Your task to perform on an android device: Search for pizza restaurants on Maps Image 0: 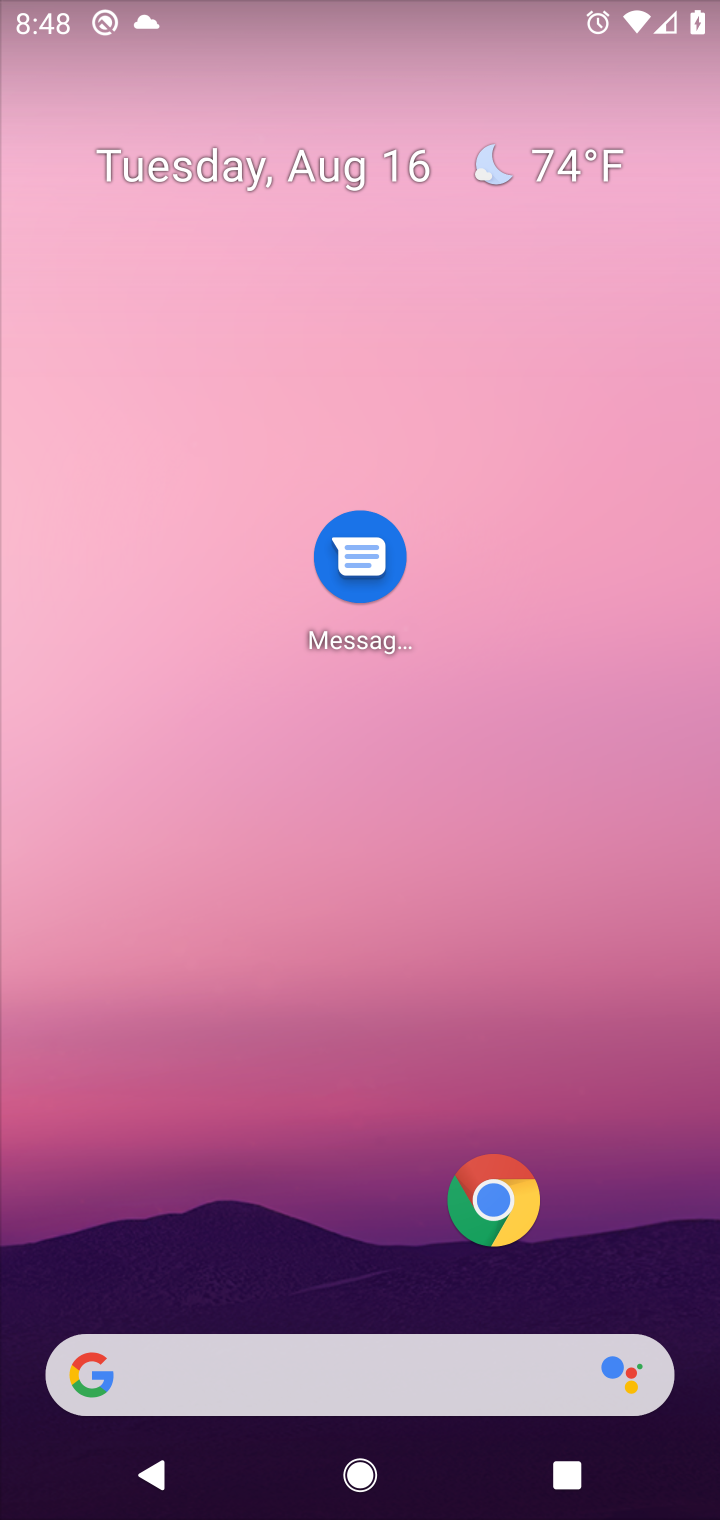
Step 0: drag from (212, 1146) to (510, 240)
Your task to perform on an android device: Search for pizza restaurants on Maps Image 1: 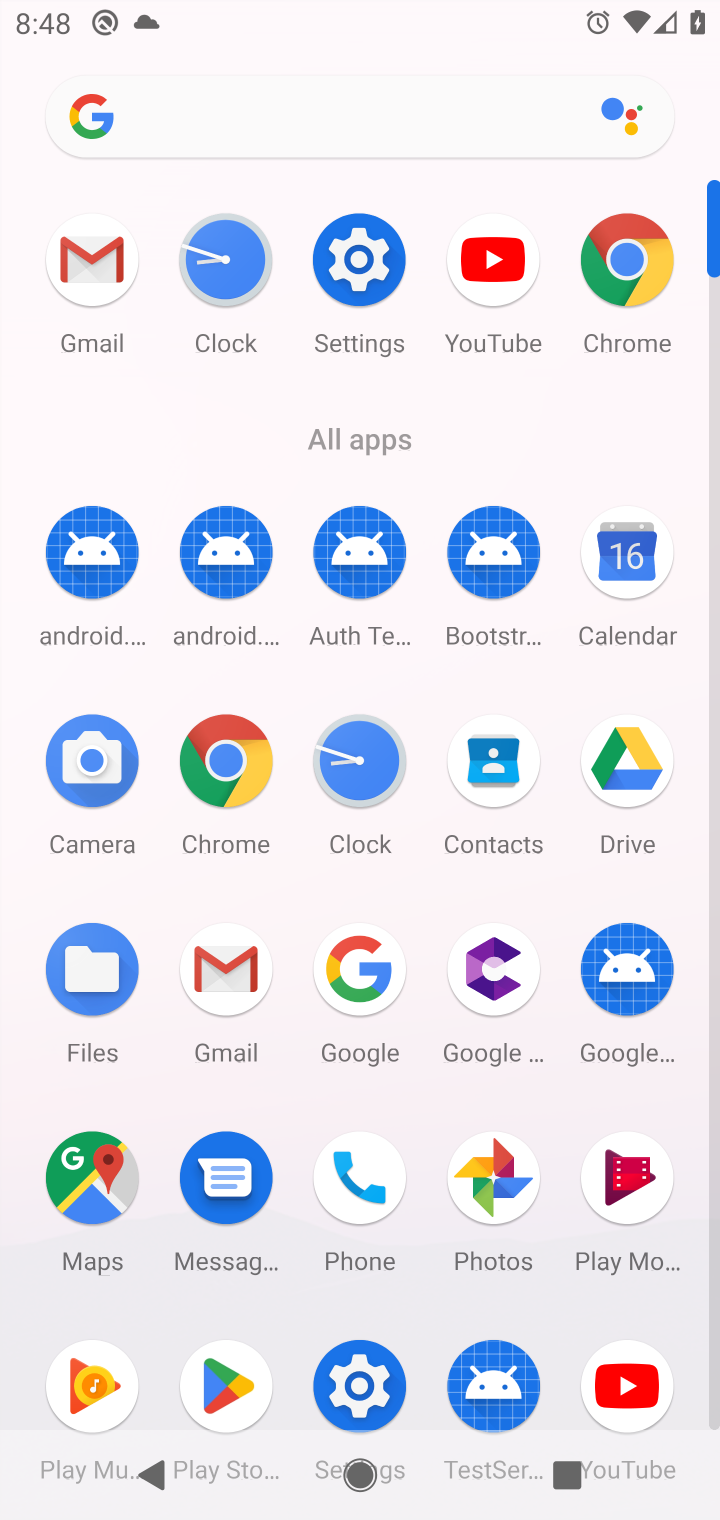
Step 1: click (76, 1191)
Your task to perform on an android device: Search for pizza restaurants on Maps Image 2: 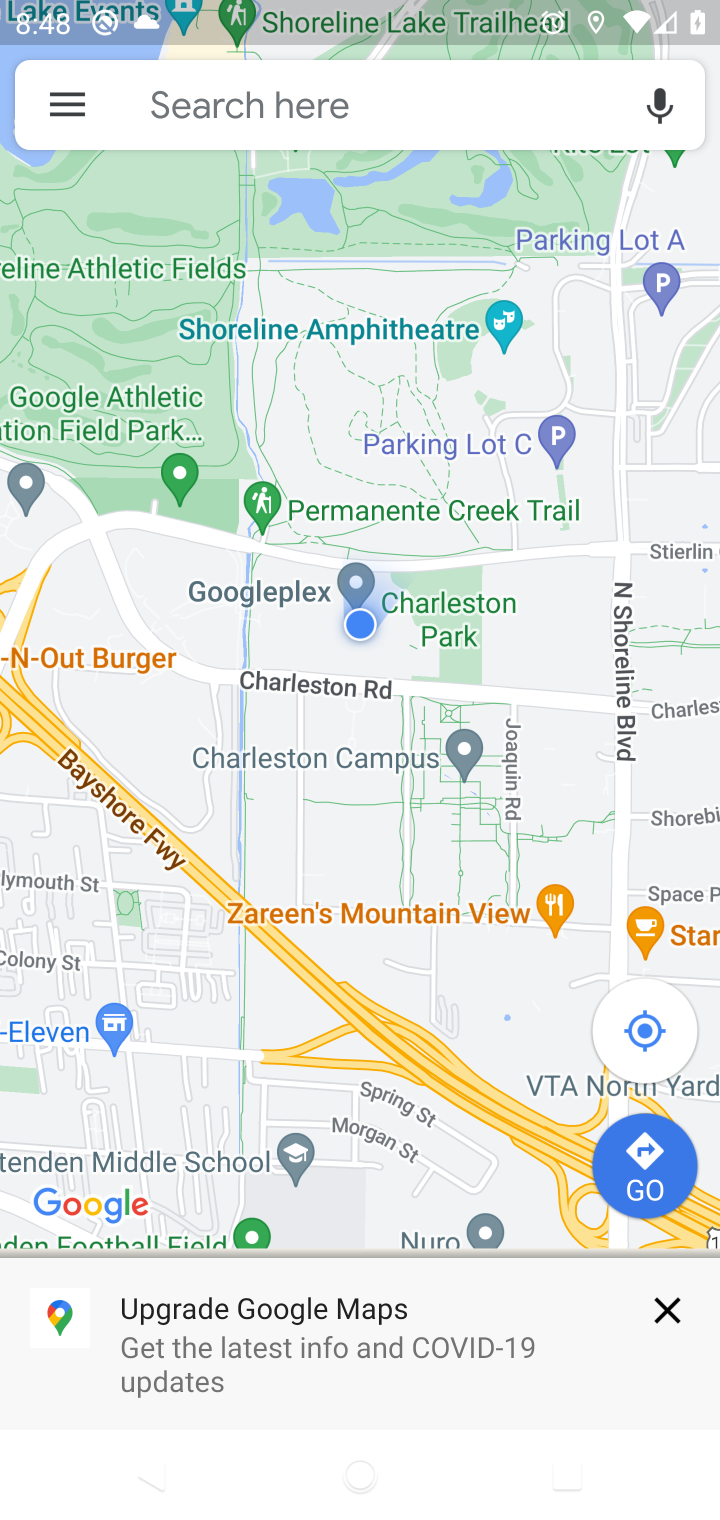
Step 2: click (180, 93)
Your task to perform on an android device: Search for pizza restaurants on Maps Image 3: 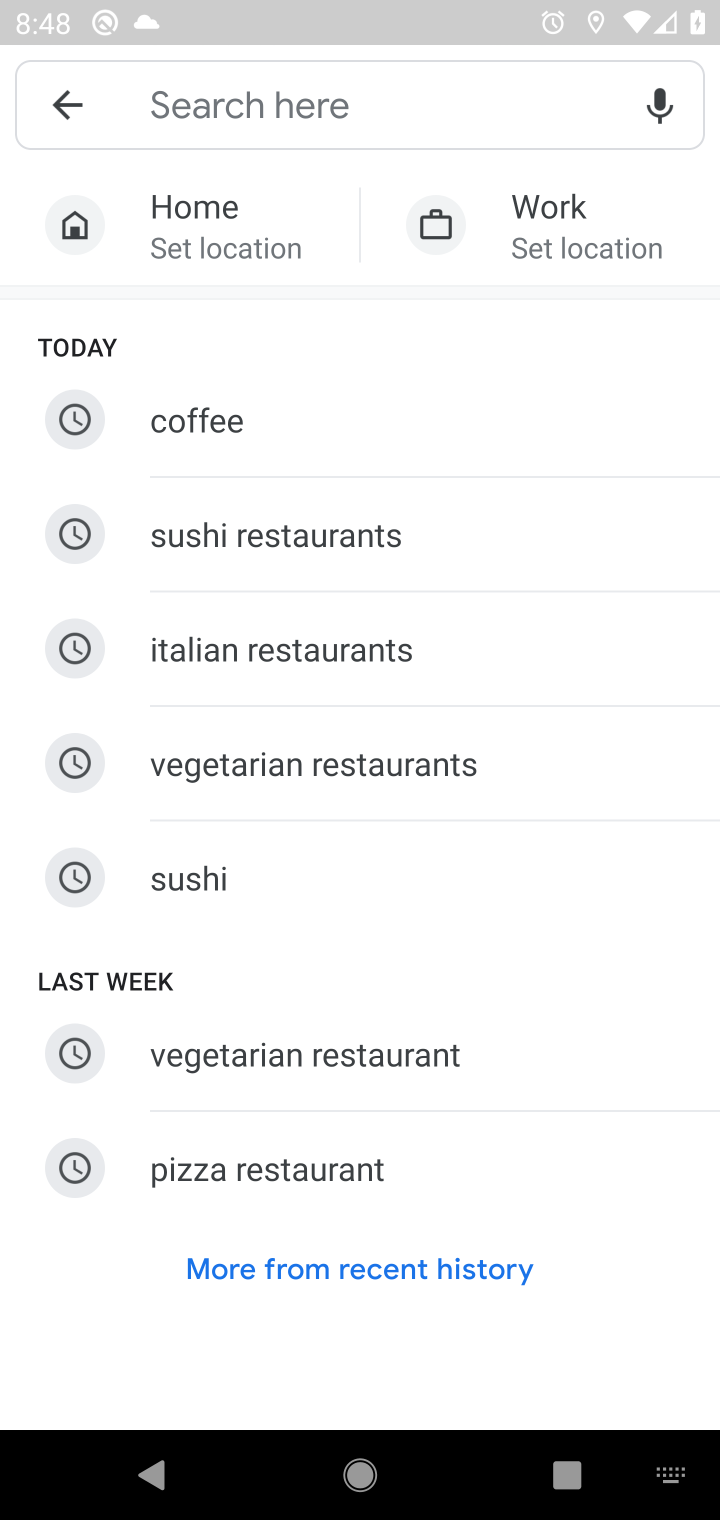
Step 3: type "pizza restaurants"
Your task to perform on an android device: Search for pizza restaurants on Maps Image 4: 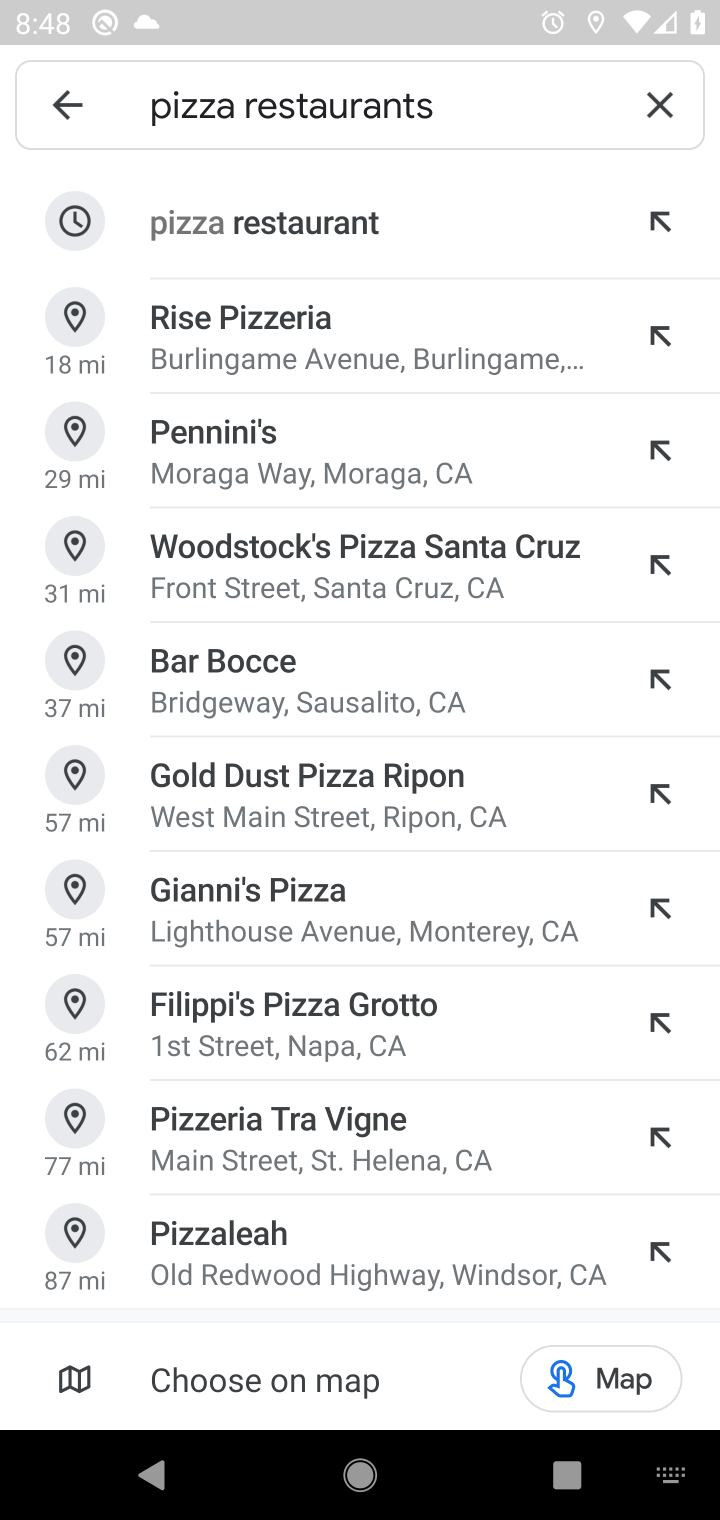
Step 4: click (329, 218)
Your task to perform on an android device: Search for pizza restaurants on Maps Image 5: 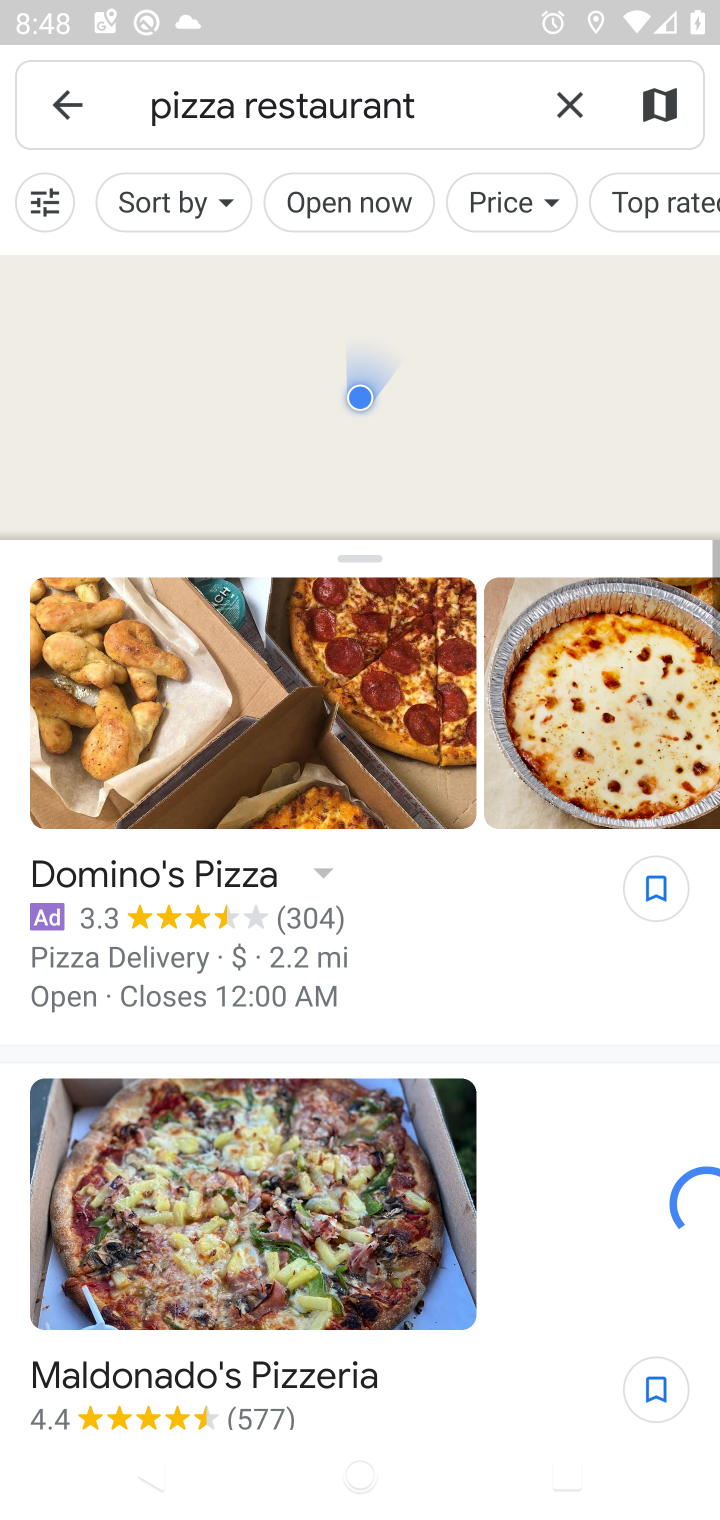
Step 5: task complete